Your task to perform on an android device: delete the emails in spam in the gmail app Image 0: 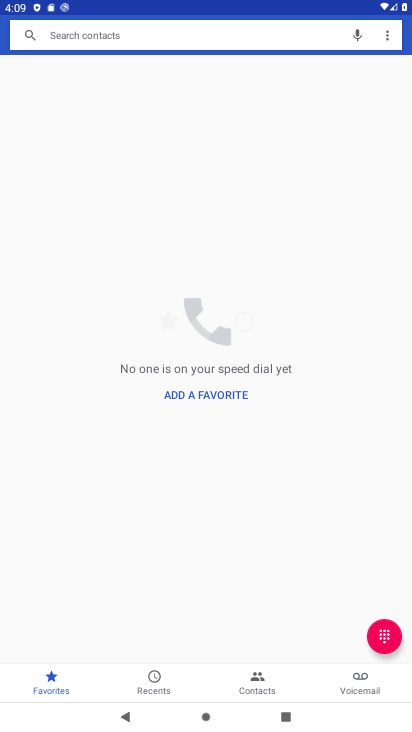
Step 0: press home button
Your task to perform on an android device: delete the emails in spam in the gmail app Image 1: 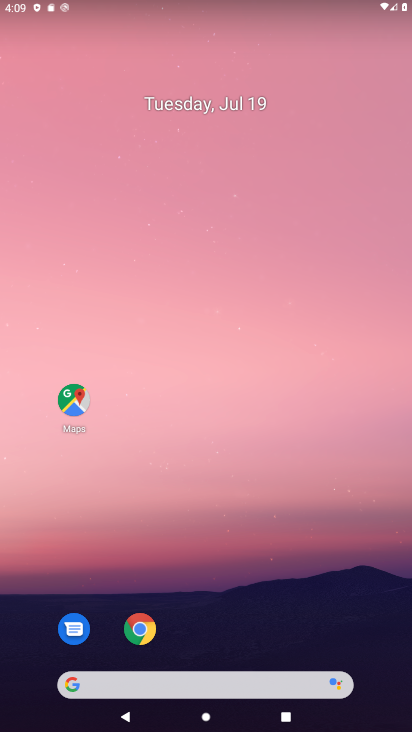
Step 1: drag from (157, 617) to (177, 345)
Your task to perform on an android device: delete the emails in spam in the gmail app Image 2: 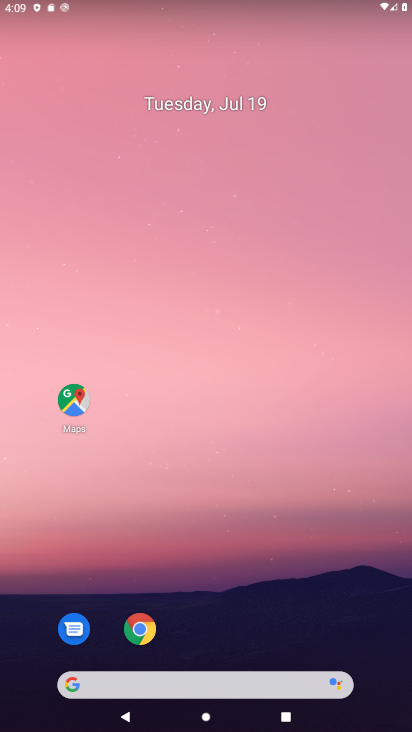
Step 2: drag from (183, 664) to (211, 195)
Your task to perform on an android device: delete the emails in spam in the gmail app Image 3: 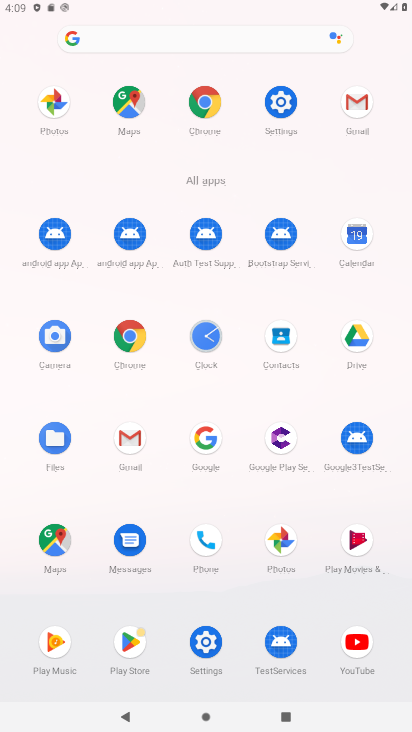
Step 3: click (116, 437)
Your task to perform on an android device: delete the emails in spam in the gmail app Image 4: 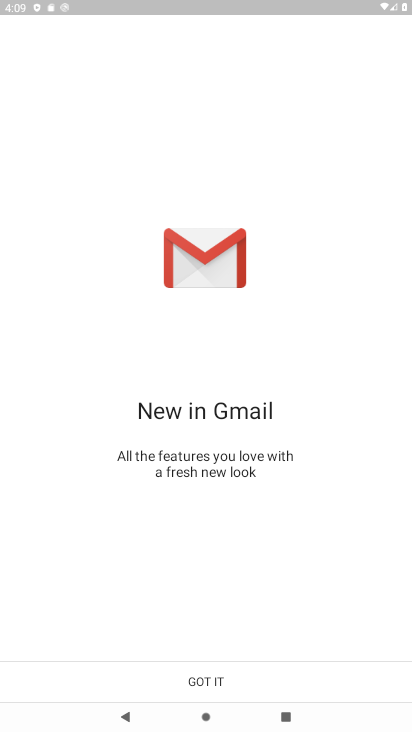
Step 4: click (204, 680)
Your task to perform on an android device: delete the emails in spam in the gmail app Image 5: 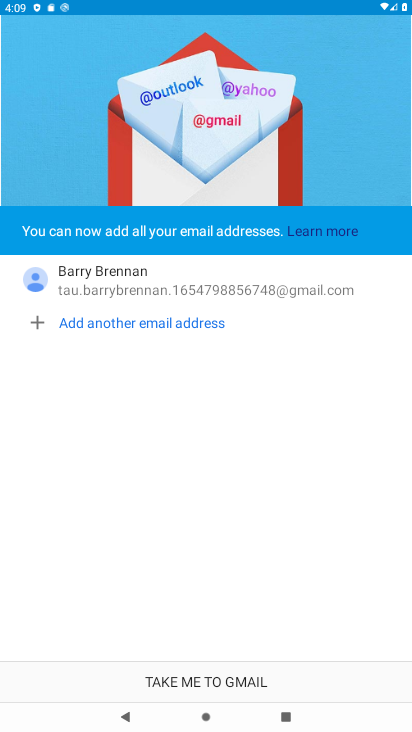
Step 5: click (204, 680)
Your task to perform on an android device: delete the emails in spam in the gmail app Image 6: 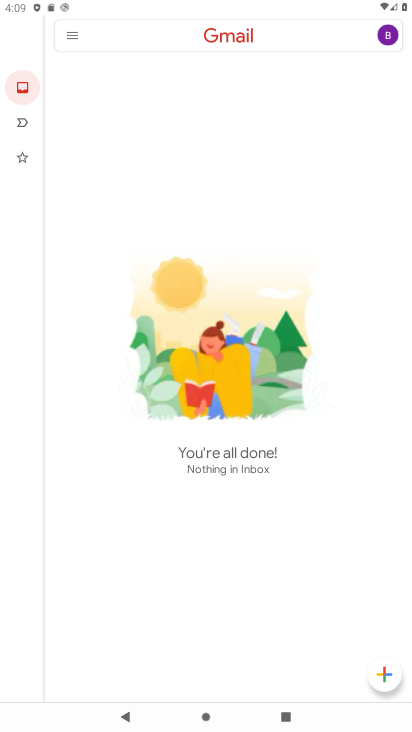
Step 6: click (70, 37)
Your task to perform on an android device: delete the emails in spam in the gmail app Image 7: 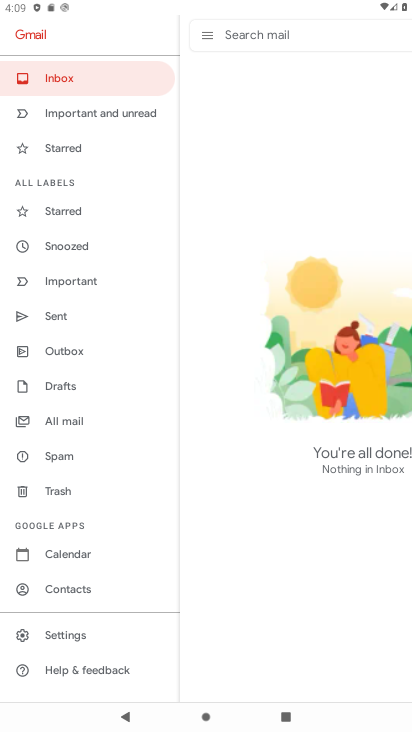
Step 7: click (66, 456)
Your task to perform on an android device: delete the emails in spam in the gmail app Image 8: 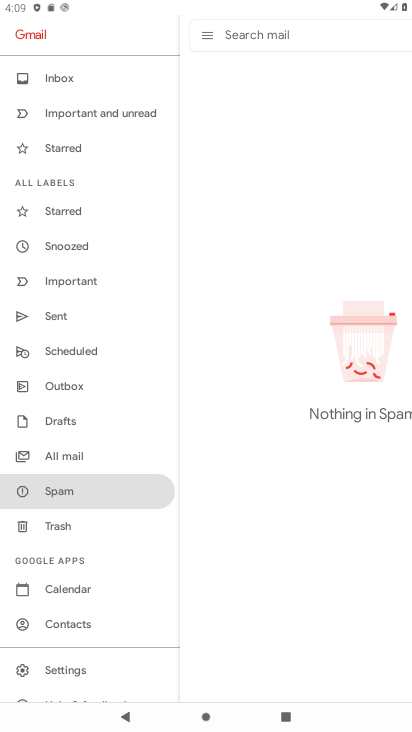
Step 8: task complete